Your task to perform on an android device: open chrome and create a bookmark for the current page Image 0: 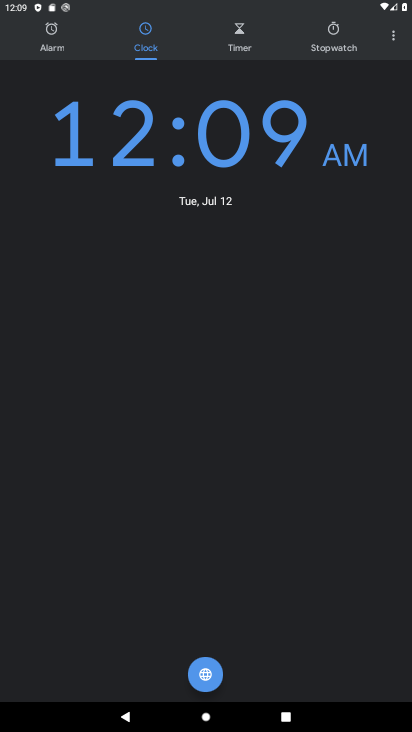
Step 0: press home button
Your task to perform on an android device: open chrome and create a bookmark for the current page Image 1: 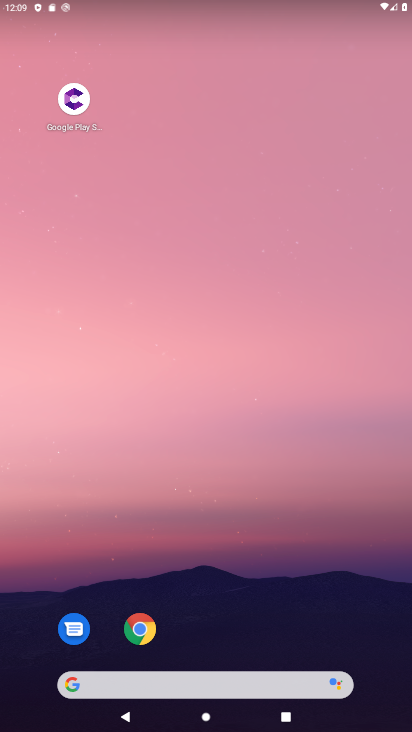
Step 1: drag from (312, 538) to (320, 51)
Your task to perform on an android device: open chrome and create a bookmark for the current page Image 2: 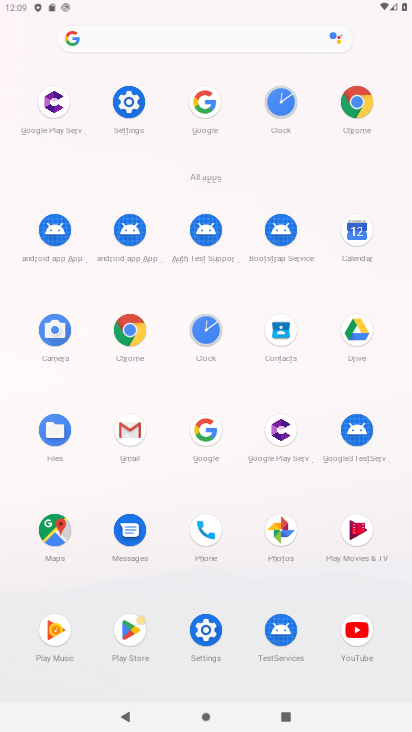
Step 2: click (137, 339)
Your task to perform on an android device: open chrome and create a bookmark for the current page Image 3: 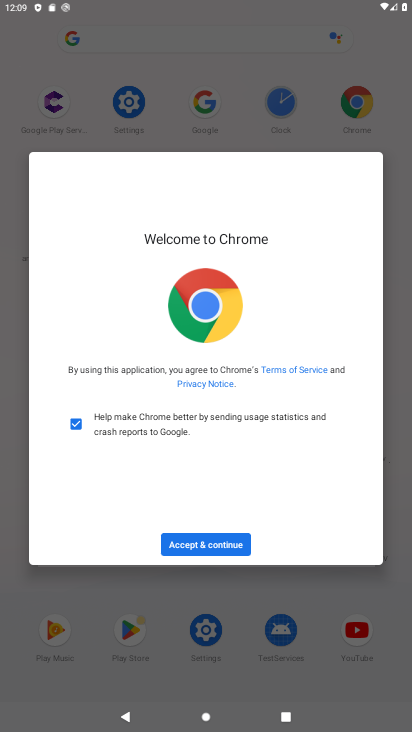
Step 3: click (224, 539)
Your task to perform on an android device: open chrome and create a bookmark for the current page Image 4: 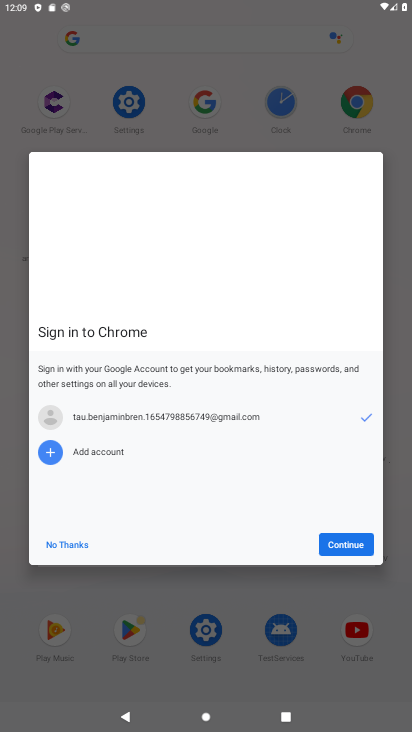
Step 4: click (71, 542)
Your task to perform on an android device: open chrome and create a bookmark for the current page Image 5: 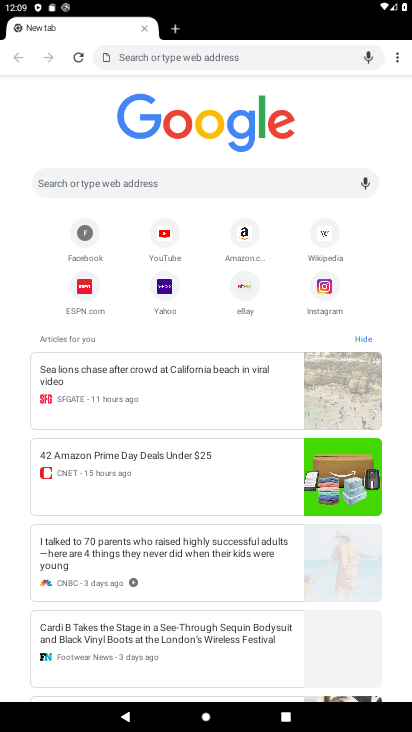
Step 5: drag from (397, 54) to (55, 110)
Your task to perform on an android device: open chrome and create a bookmark for the current page Image 6: 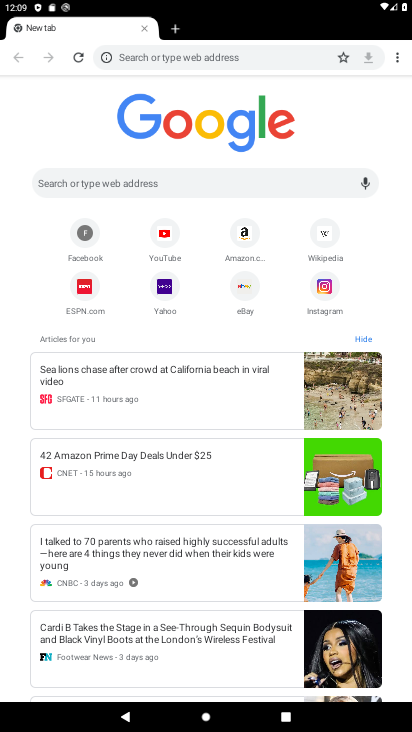
Step 6: click (338, 54)
Your task to perform on an android device: open chrome and create a bookmark for the current page Image 7: 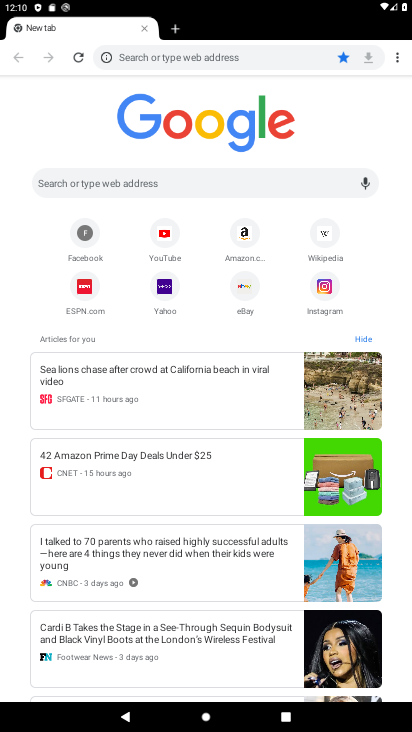
Step 7: task complete